Your task to perform on an android device: set the stopwatch Image 0: 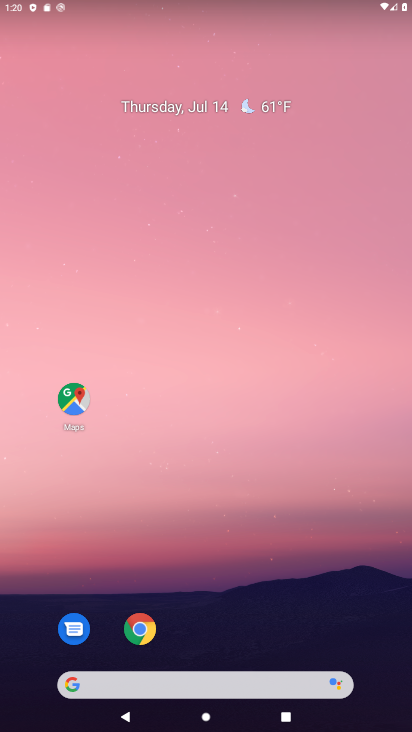
Step 0: drag from (146, 640) to (317, 95)
Your task to perform on an android device: set the stopwatch Image 1: 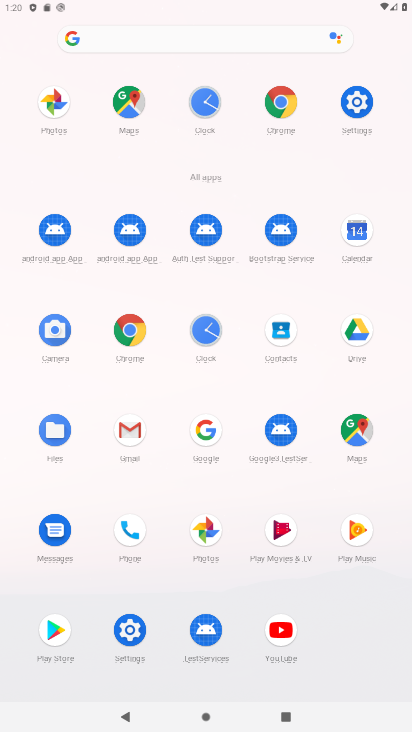
Step 1: click (203, 332)
Your task to perform on an android device: set the stopwatch Image 2: 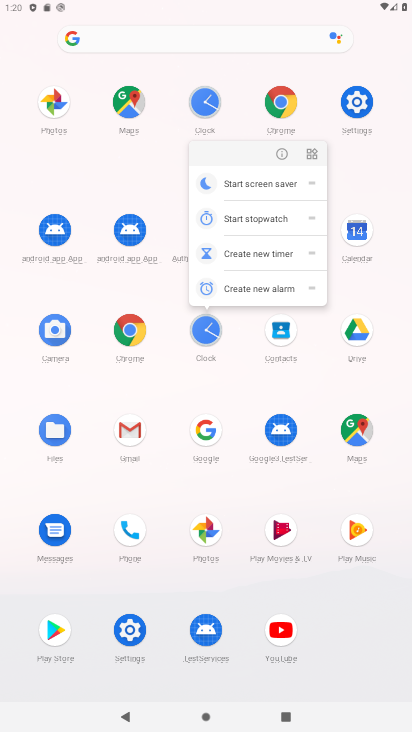
Step 2: click (283, 146)
Your task to perform on an android device: set the stopwatch Image 3: 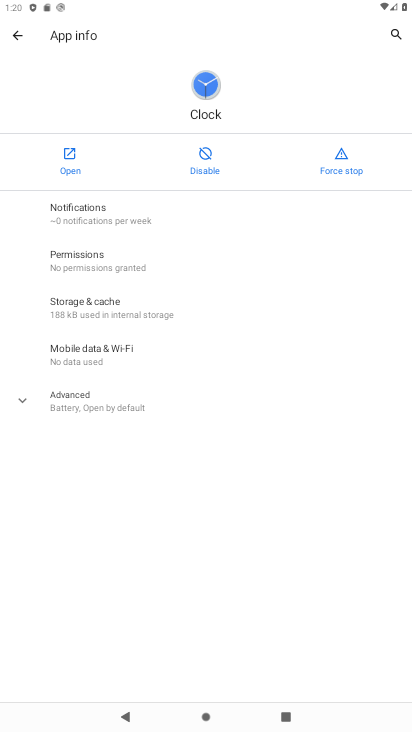
Step 3: click (54, 165)
Your task to perform on an android device: set the stopwatch Image 4: 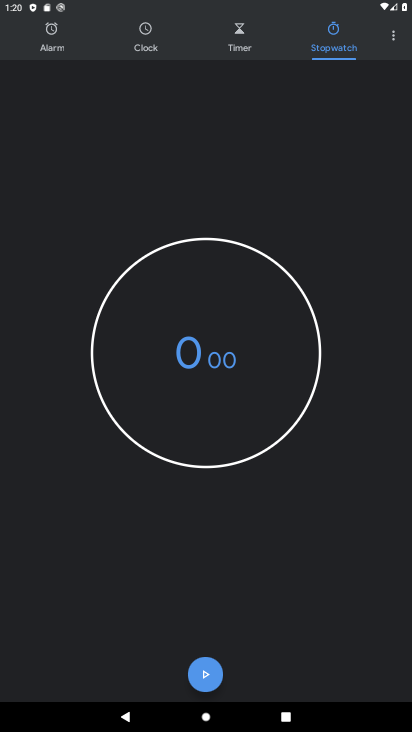
Step 4: click (329, 46)
Your task to perform on an android device: set the stopwatch Image 5: 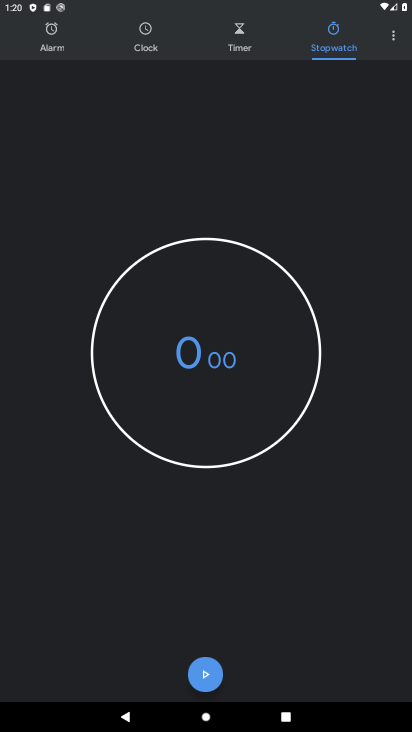
Step 5: drag from (293, 511) to (295, 174)
Your task to perform on an android device: set the stopwatch Image 6: 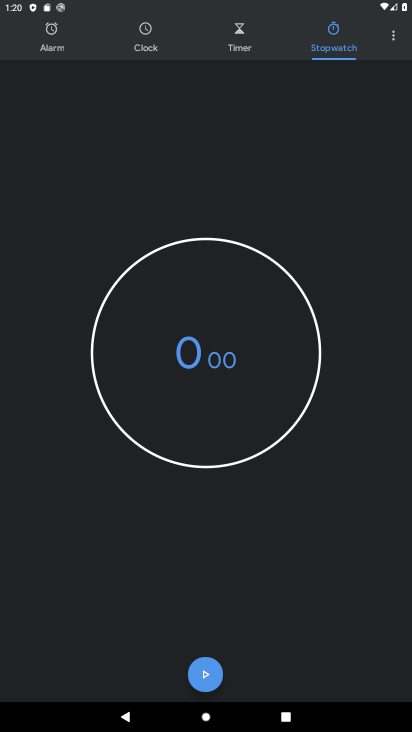
Step 6: drag from (219, 500) to (213, 354)
Your task to perform on an android device: set the stopwatch Image 7: 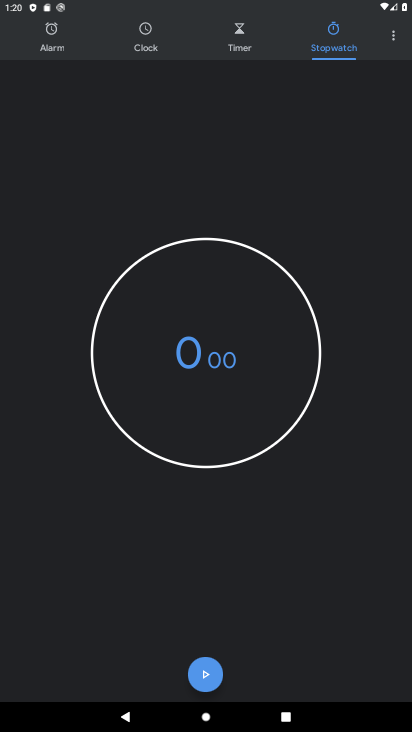
Step 7: drag from (261, 136) to (256, 450)
Your task to perform on an android device: set the stopwatch Image 8: 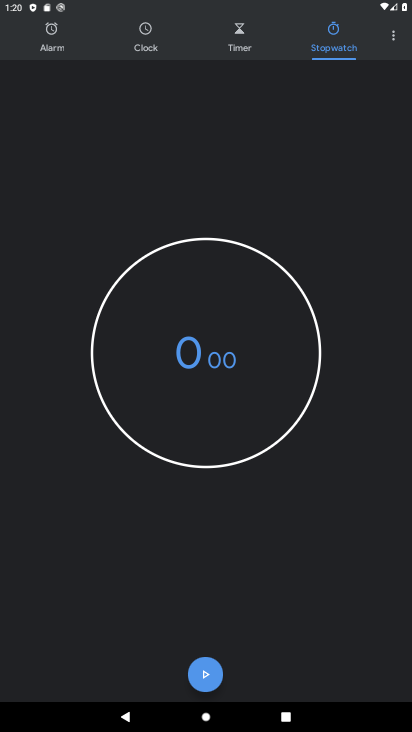
Step 8: drag from (234, 189) to (252, 552)
Your task to perform on an android device: set the stopwatch Image 9: 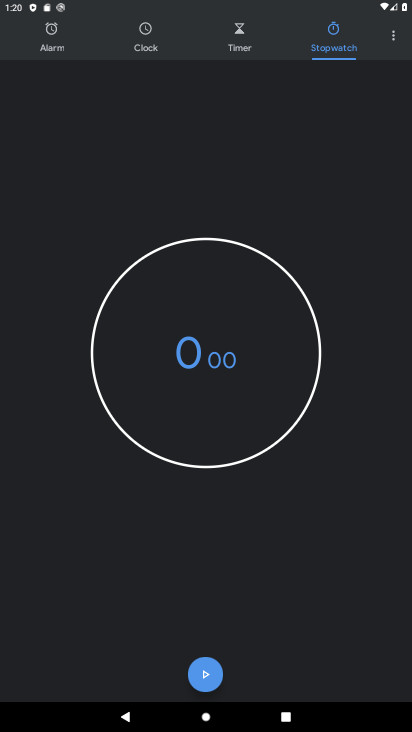
Step 9: click (343, 42)
Your task to perform on an android device: set the stopwatch Image 10: 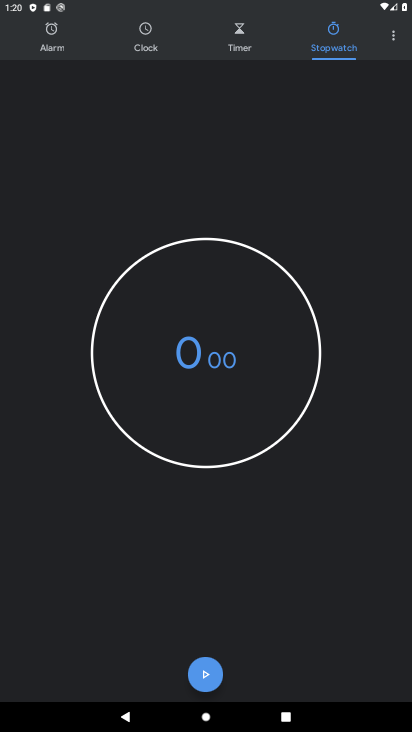
Step 10: click (343, 42)
Your task to perform on an android device: set the stopwatch Image 11: 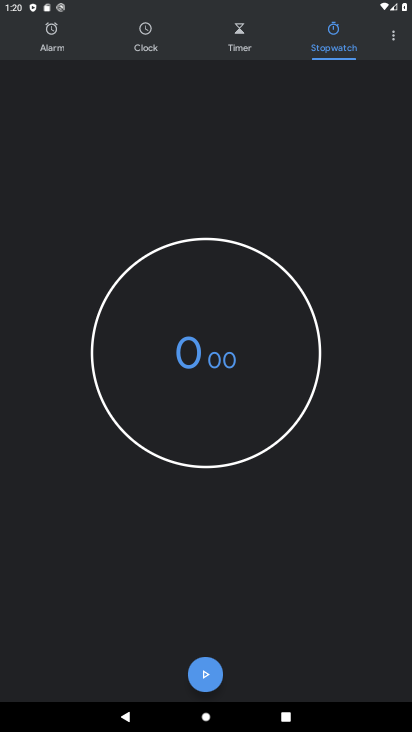
Step 11: click (276, 475)
Your task to perform on an android device: set the stopwatch Image 12: 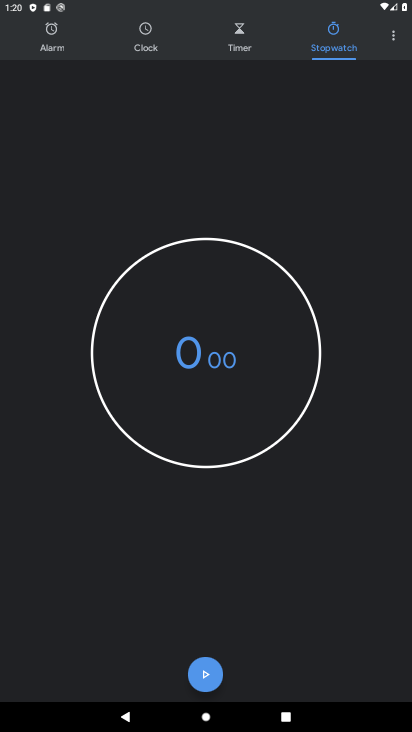
Step 12: click (268, 222)
Your task to perform on an android device: set the stopwatch Image 13: 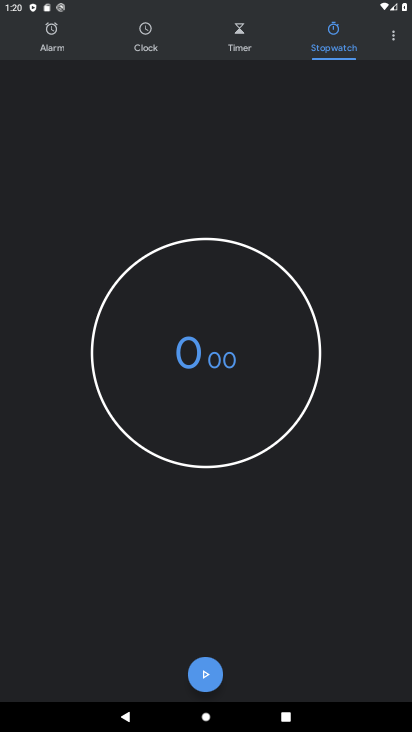
Step 13: click (269, 223)
Your task to perform on an android device: set the stopwatch Image 14: 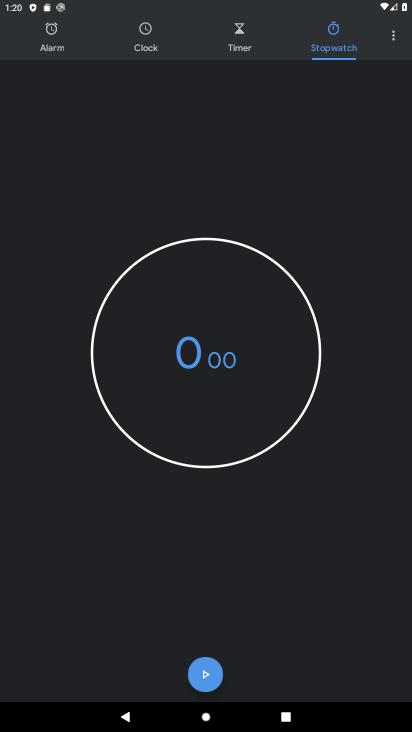
Step 14: drag from (275, 544) to (295, 404)
Your task to perform on an android device: set the stopwatch Image 15: 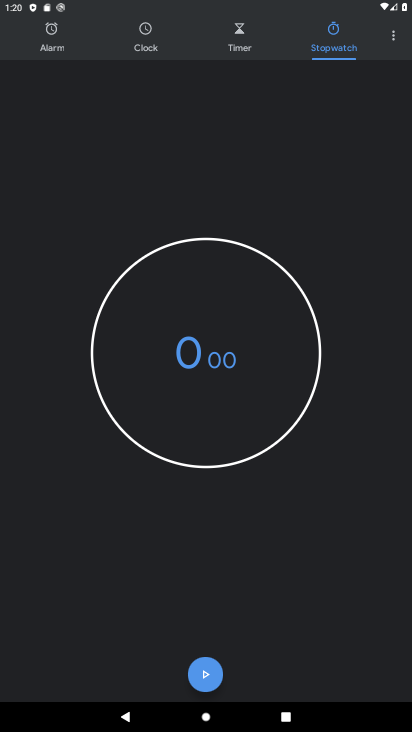
Step 15: click (198, 666)
Your task to perform on an android device: set the stopwatch Image 16: 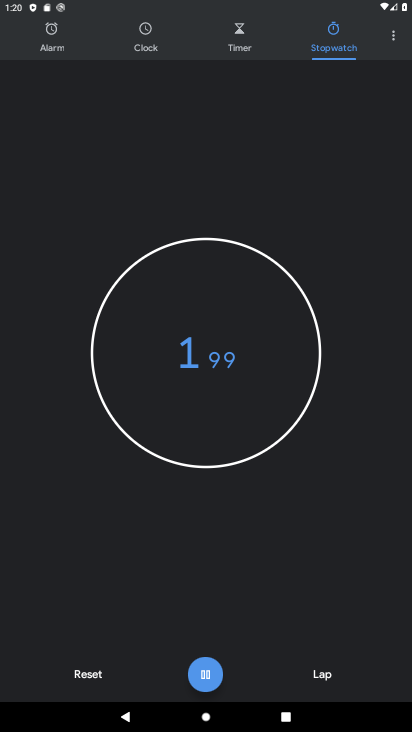
Step 16: task complete